Your task to perform on an android device: turn notification dots on Image 0: 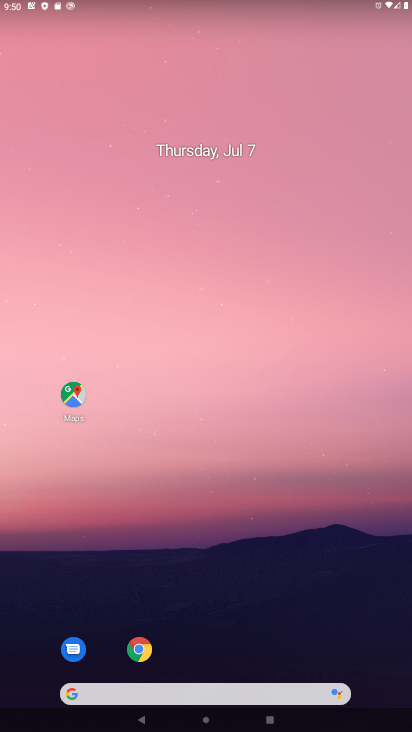
Step 0: drag from (230, 724) to (230, 334)
Your task to perform on an android device: turn notification dots on Image 1: 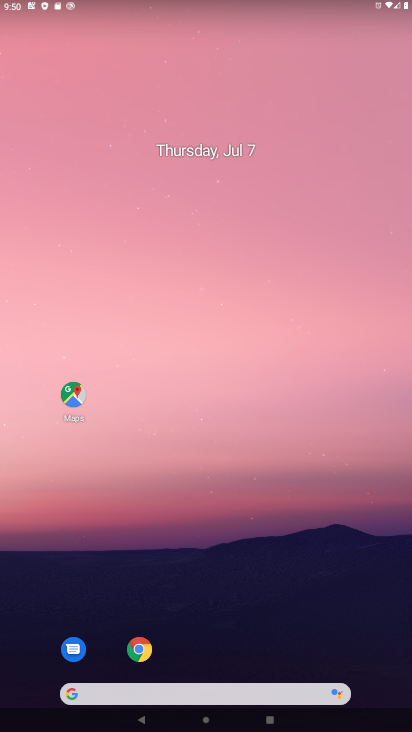
Step 1: drag from (244, 726) to (230, 595)
Your task to perform on an android device: turn notification dots on Image 2: 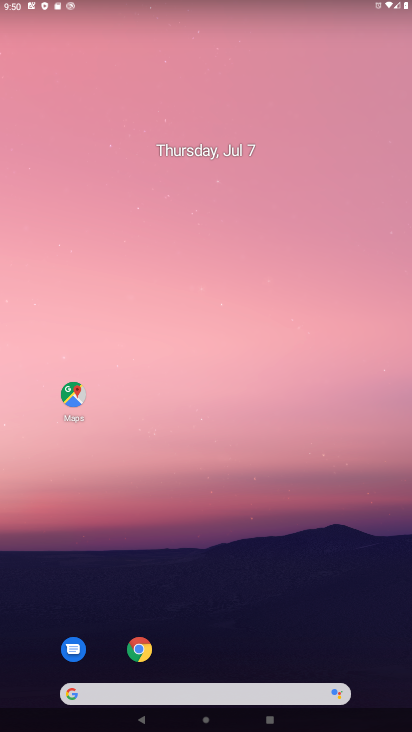
Step 2: drag from (220, 224) to (205, 128)
Your task to perform on an android device: turn notification dots on Image 3: 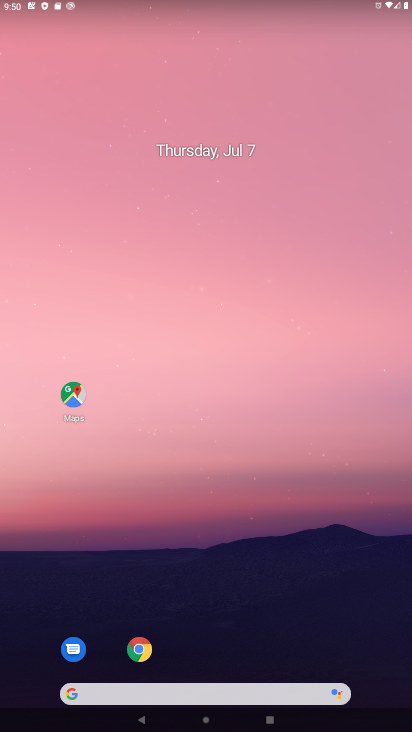
Step 3: drag from (294, 707) to (277, 56)
Your task to perform on an android device: turn notification dots on Image 4: 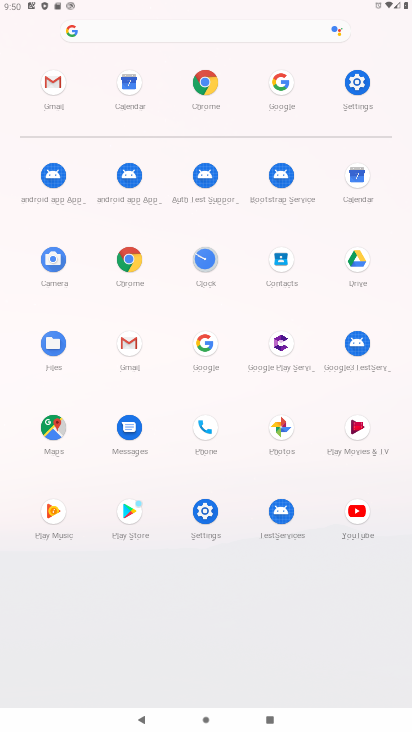
Step 4: click (361, 85)
Your task to perform on an android device: turn notification dots on Image 5: 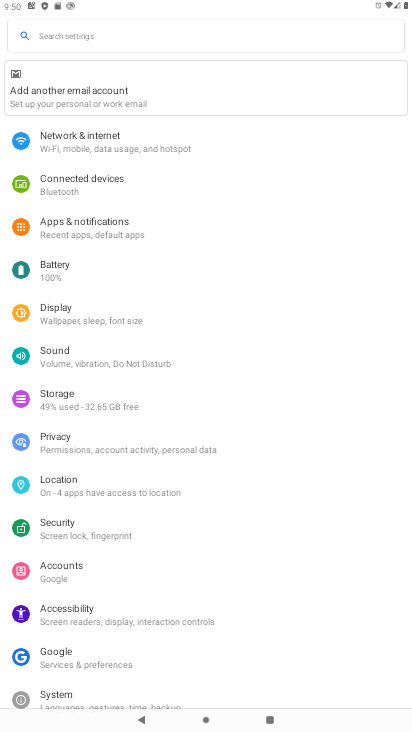
Step 5: click (82, 228)
Your task to perform on an android device: turn notification dots on Image 6: 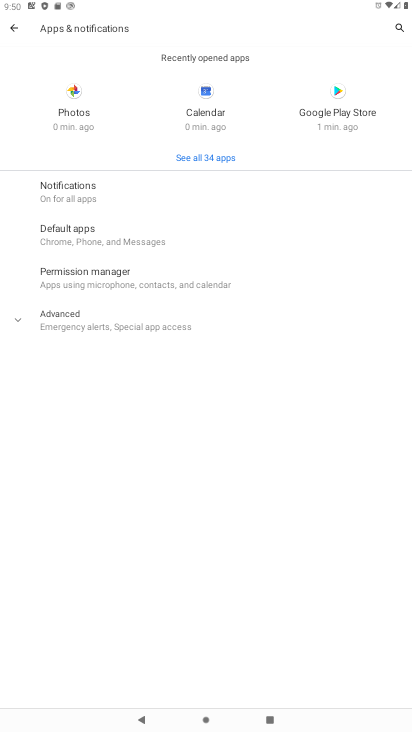
Step 6: click (66, 186)
Your task to perform on an android device: turn notification dots on Image 7: 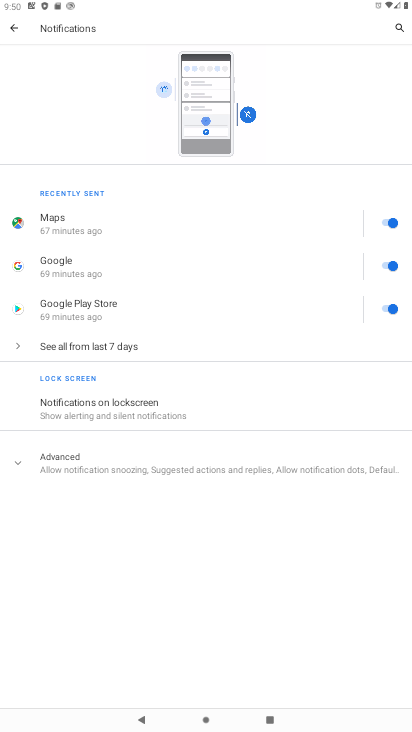
Step 7: click (57, 459)
Your task to perform on an android device: turn notification dots on Image 8: 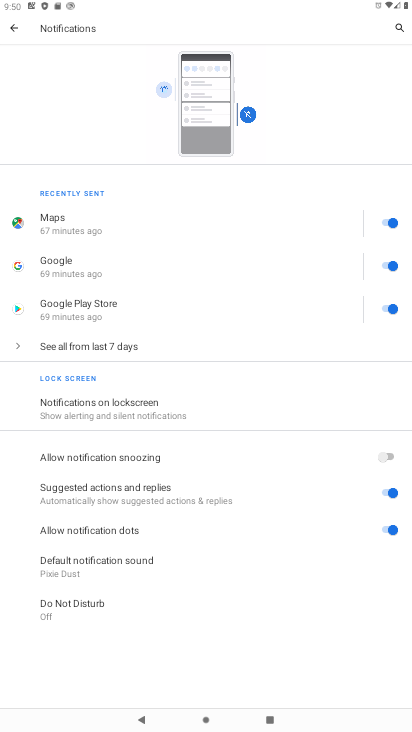
Step 8: task complete